Your task to perform on an android device: Go to ESPN.com Image 0: 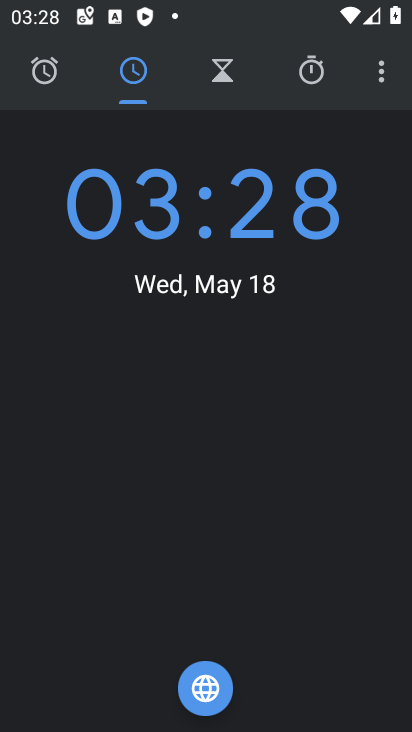
Step 0: press home button
Your task to perform on an android device: Go to ESPN.com Image 1: 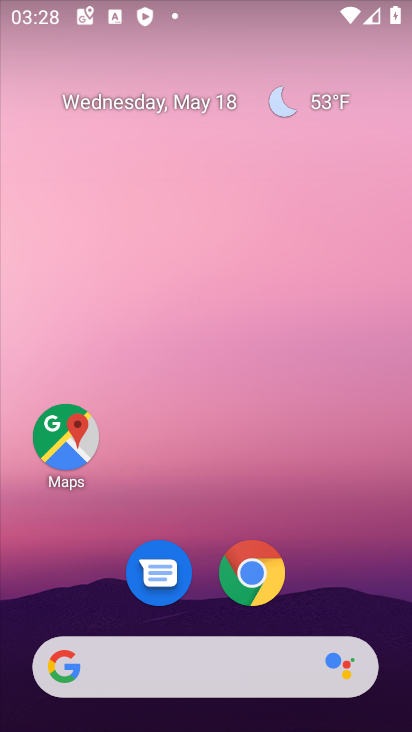
Step 1: drag from (191, 607) to (198, 327)
Your task to perform on an android device: Go to ESPN.com Image 2: 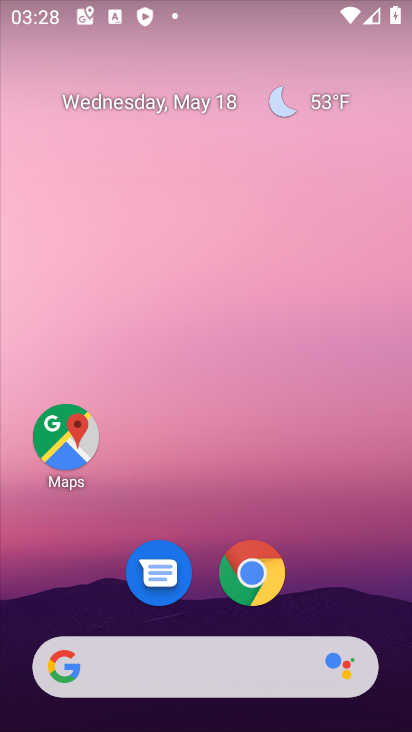
Step 2: click (248, 580)
Your task to perform on an android device: Go to ESPN.com Image 3: 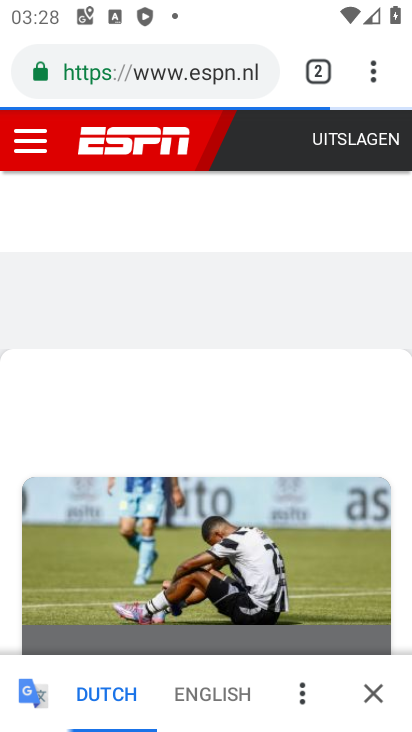
Step 3: click (368, 682)
Your task to perform on an android device: Go to ESPN.com Image 4: 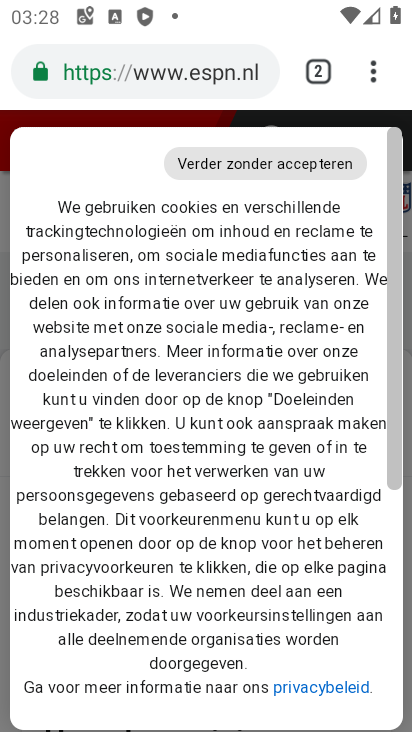
Step 4: task complete